Your task to perform on an android device: turn off notifications settings in the gmail app Image 0: 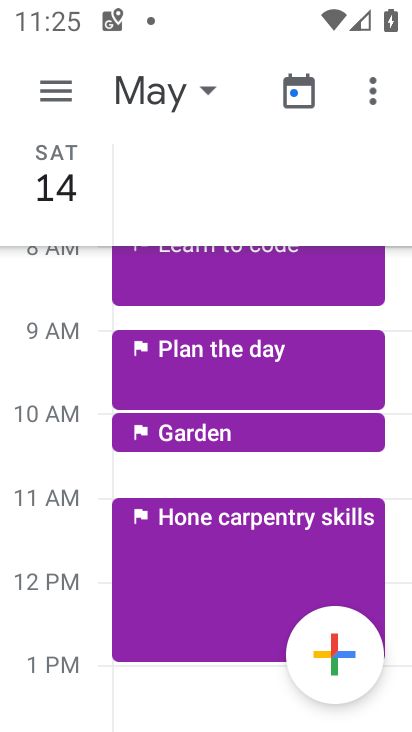
Step 0: press home button
Your task to perform on an android device: turn off notifications settings in the gmail app Image 1: 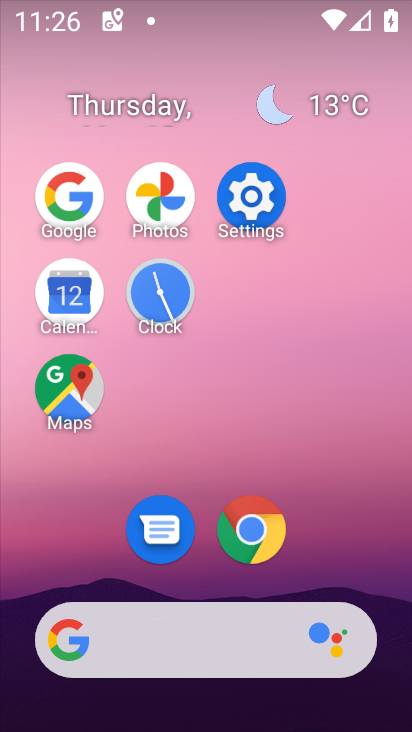
Step 1: drag from (337, 554) to (286, 201)
Your task to perform on an android device: turn off notifications settings in the gmail app Image 2: 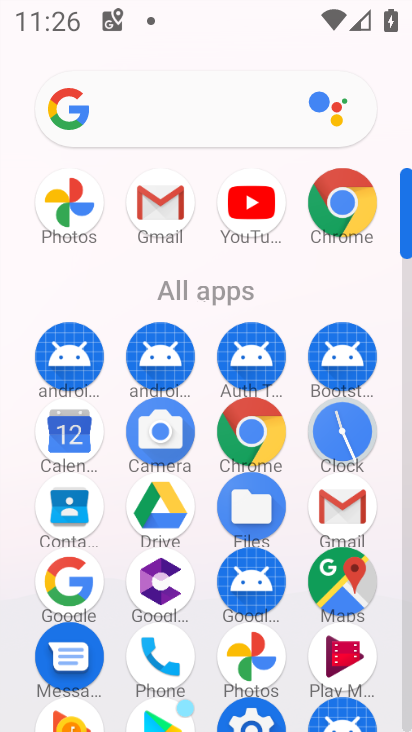
Step 2: drag from (357, 513) to (254, 278)
Your task to perform on an android device: turn off notifications settings in the gmail app Image 3: 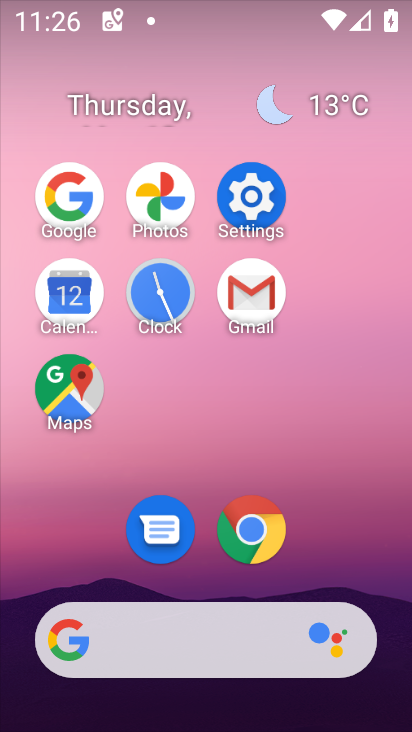
Step 3: click (254, 312)
Your task to perform on an android device: turn off notifications settings in the gmail app Image 4: 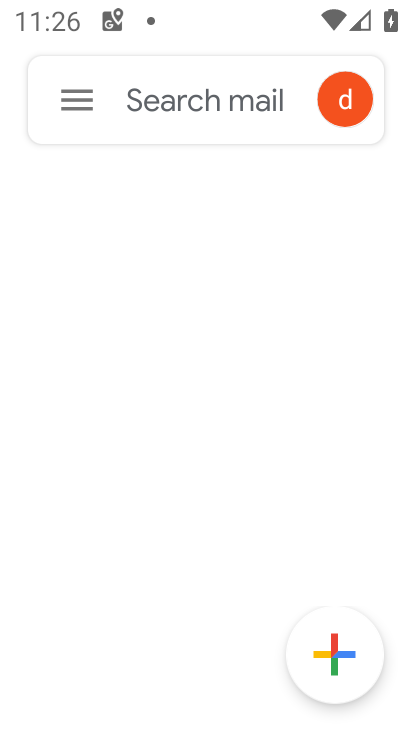
Step 4: click (82, 95)
Your task to perform on an android device: turn off notifications settings in the gmail app Image 5: 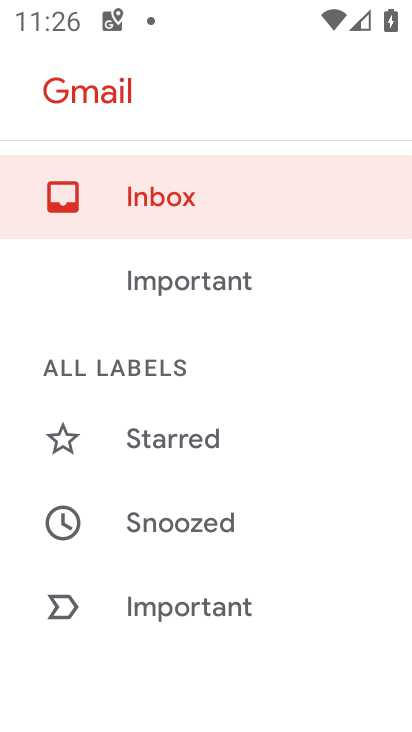
Step 5: drag from (192, 561) to (229, 159)
Your task to perform on an android device: turn off notifications settings in the gmail app Image 6: 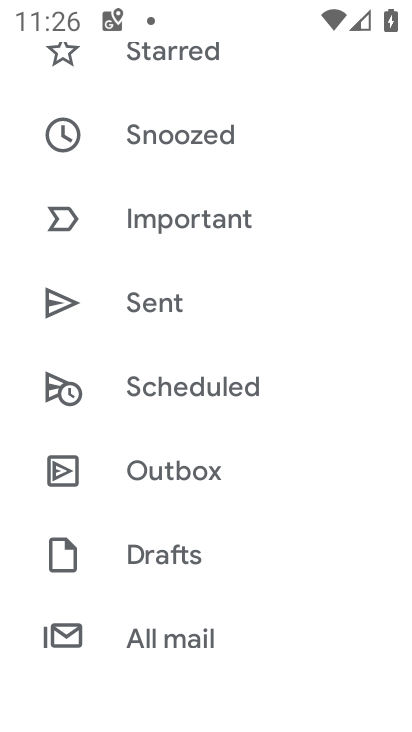
Step 6: drag from (257, 534) to (269, 169)
Your task to perform on an android device: turn off notifications settings in the gmail app Image 7: 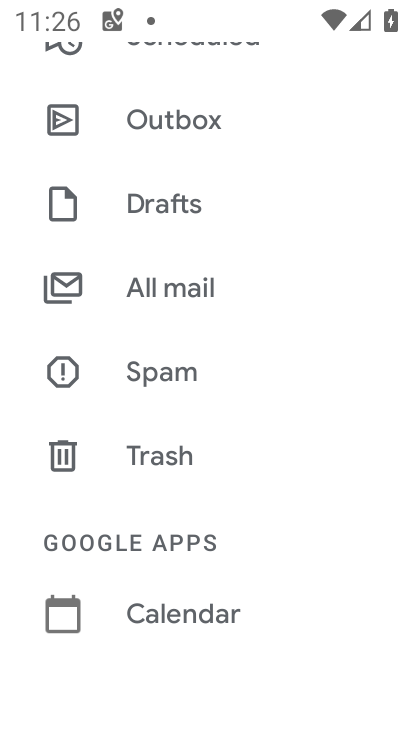
Step 7: drag from (221, 484) to (232, 142)
Your task to perform on an android device: turn off notifications settings in the gmail app Image 8: 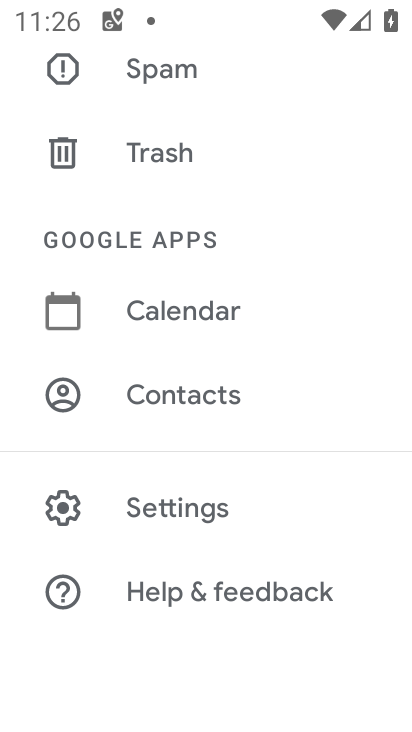
Step 8: click (209, 502)
Your task to perform on an android device: turn off notifications settings in the gmail app Image 9: 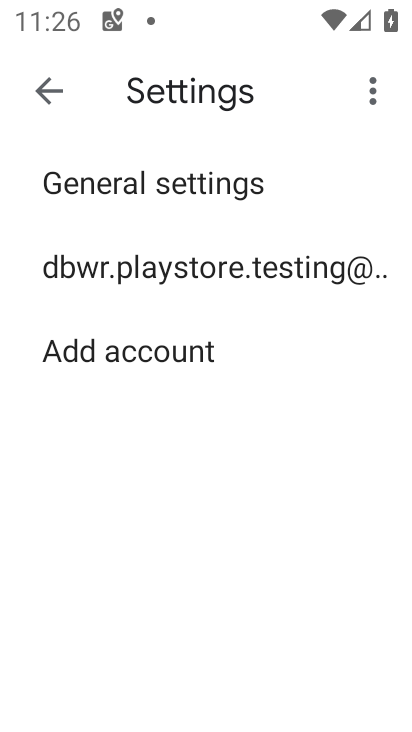
Step 9: click (221, 282)
Your task to perform on an android device: turn off notifications settings in the gmail app Image 10: 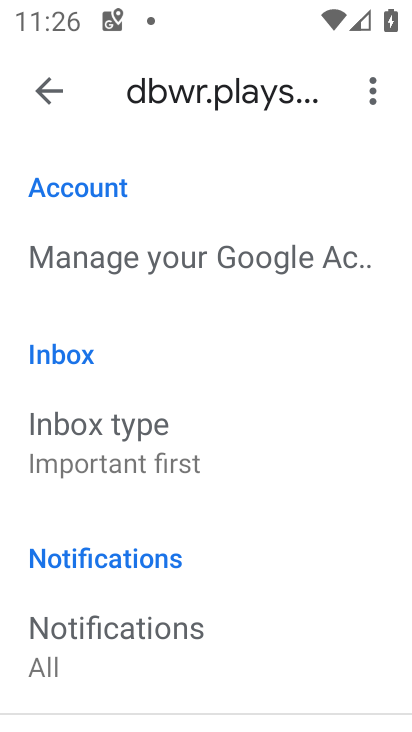
Step 10: click (169, 622)
Your task to perform on an android device: turn off notifications settings in the gmail app Image 11: 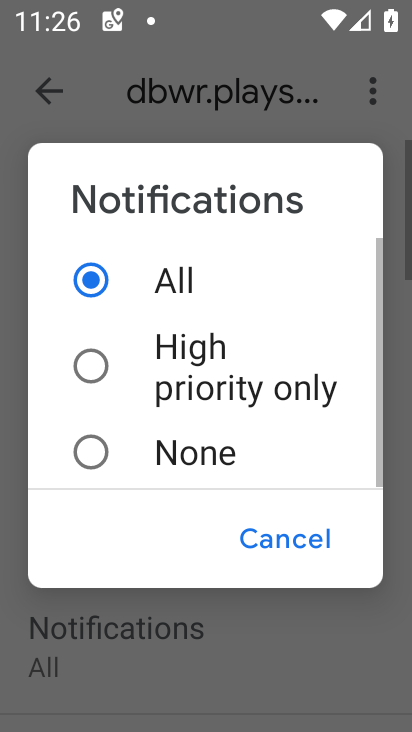
Step 11: click (151, 456)
Your task to perform on an android device: turn off notifications settings in the gmail app Image 12: 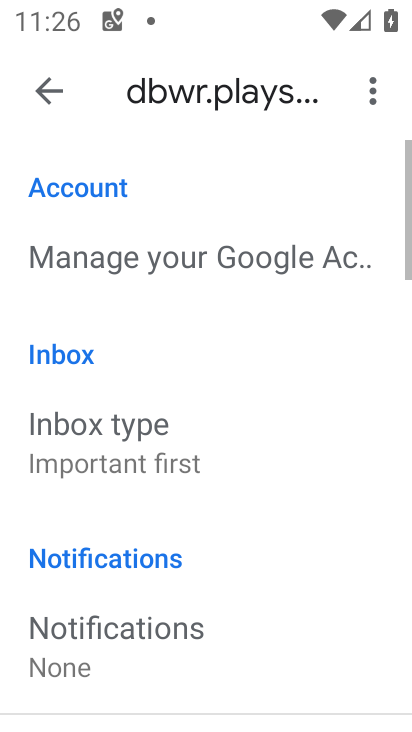
Step 12: task complete